Your task to perform on an android device: Go to sound settings Image 0: 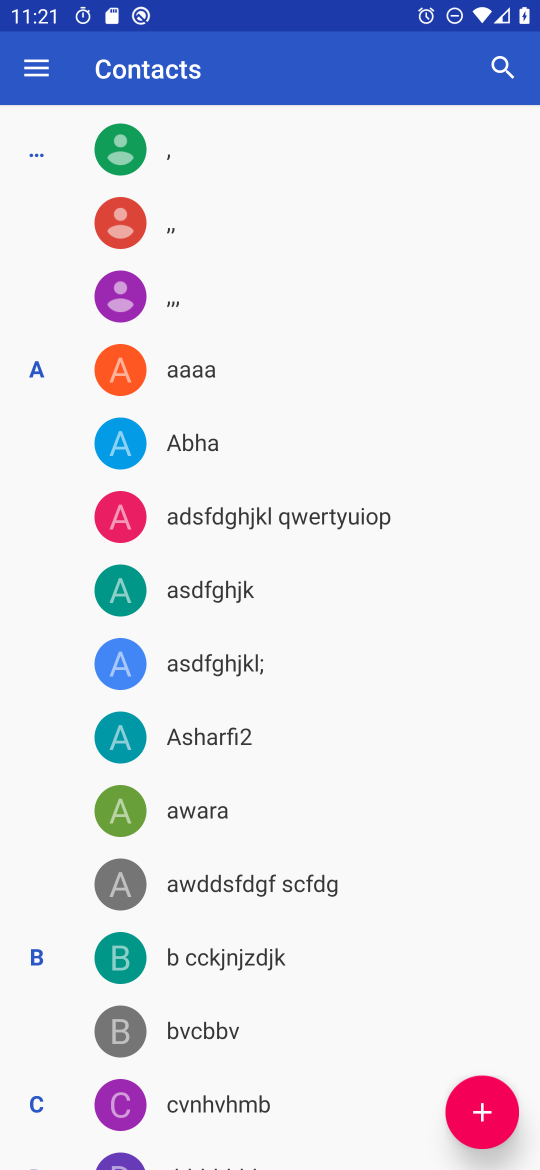
Step 0: press home button
Your task to perform on an android device: Go to sound settings Image 1: 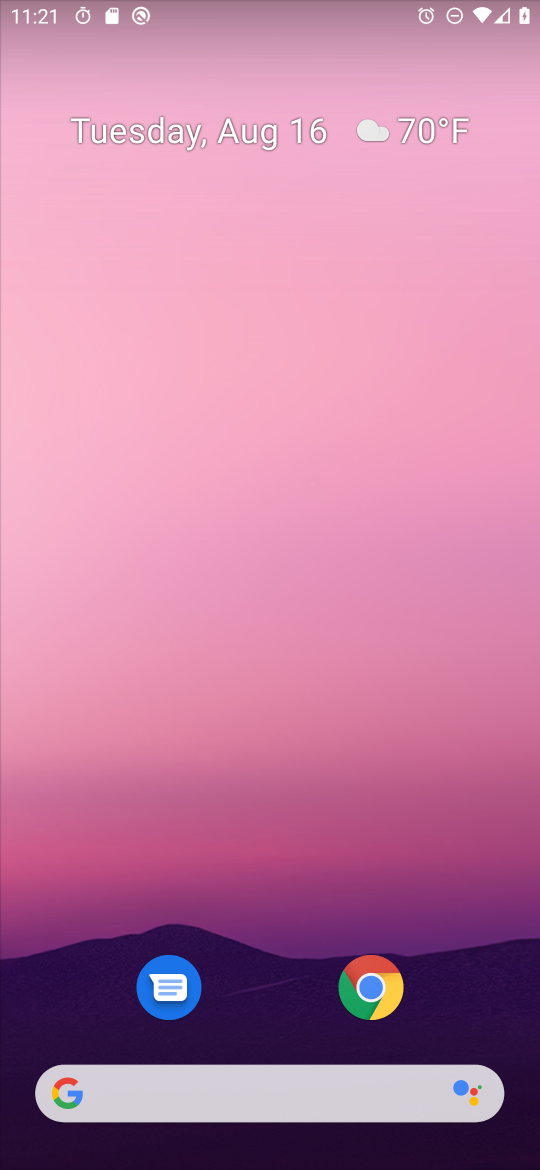
Step 1: drag from (27, 1145) to (170, 330)
Your task to perform on an android device: Go to sound settings Image 2: 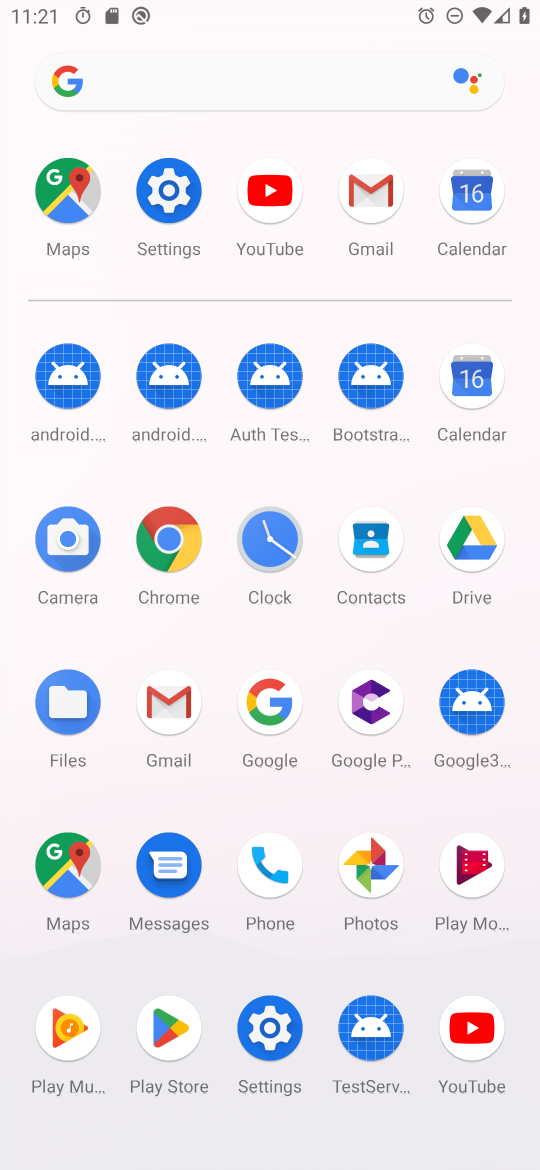
Step 2: click (265, 1027)
Your task to perform on an android device: Go to sound settings Image 3: 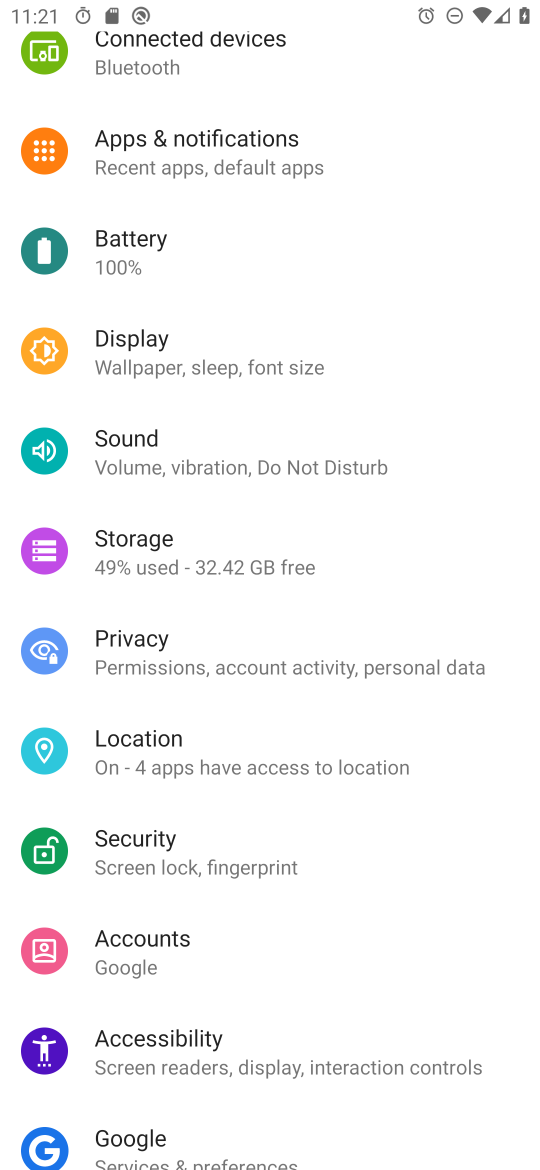
Step 3: click (159, 445)
Your task to perform on an android device: Go to sound settings Image 4: 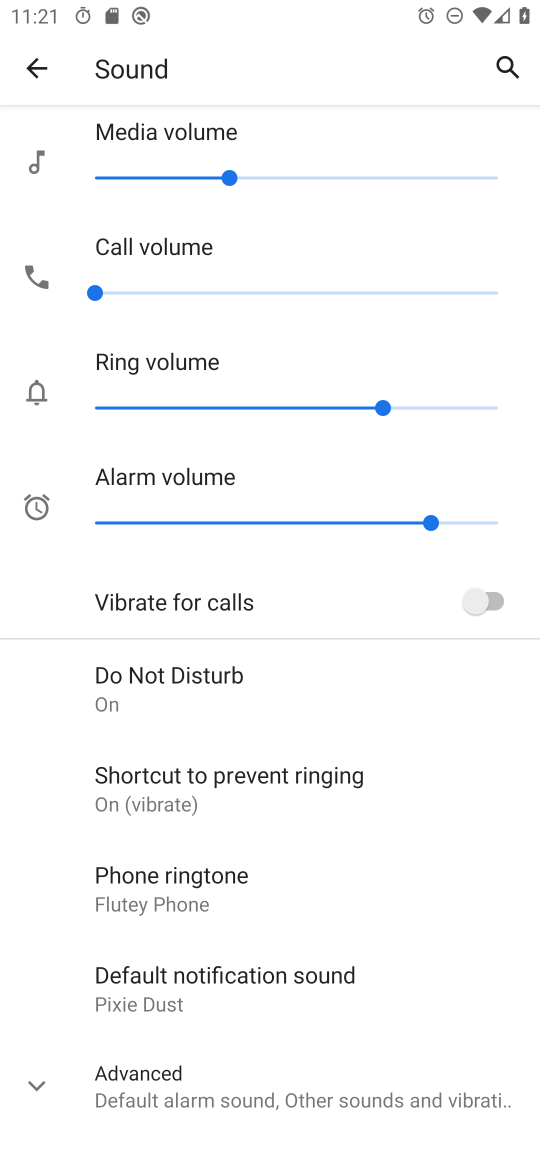
Step 4: task complete